Your task to perform on an android device: Go to location settings Image 0: 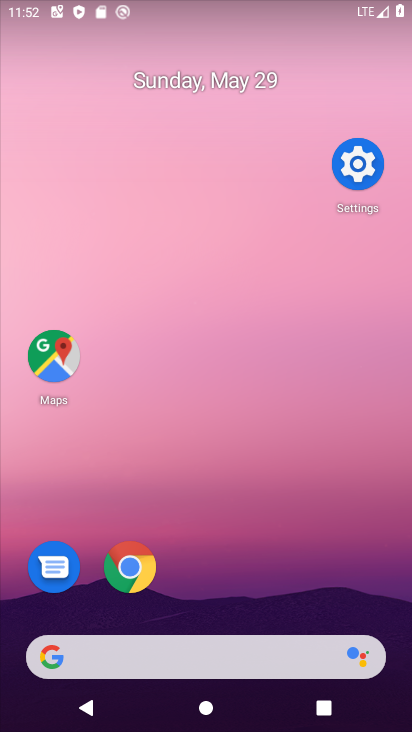
Step 0: drag from (315, 595) to (315, 241)
Your task to perform on an android device: Go to location settings Image 1: 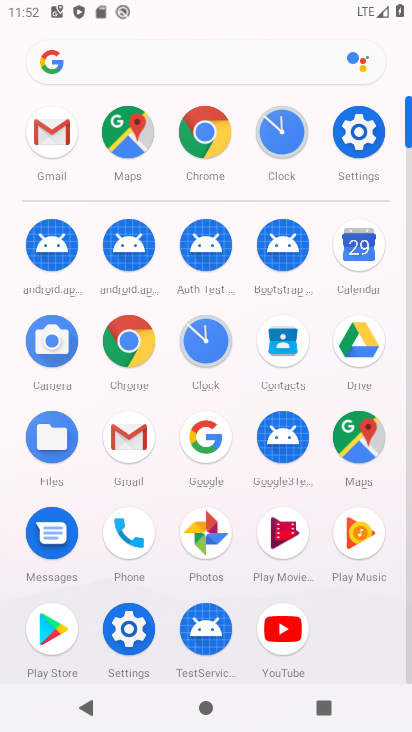
Step 1: click (130, 640)
Your task to perform on an android device: Go to location settings Image 2: 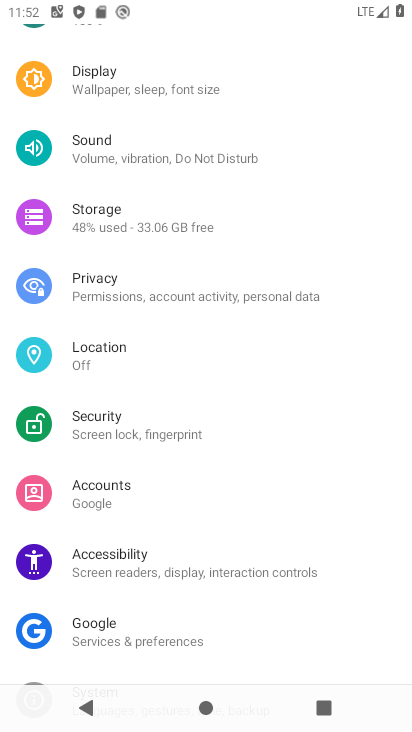
Step 2: click (148, 350)
Your task to perform on an android device: Go to location settings Image 3: 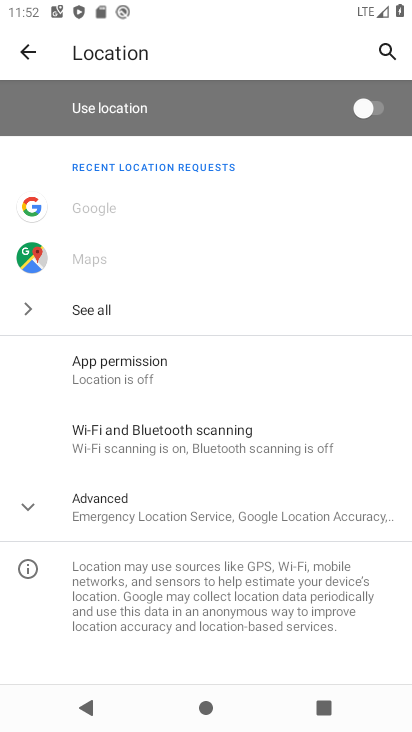
Step 3: task complete